Your task to perform on an android device: What's on my calendar today? Image 0: 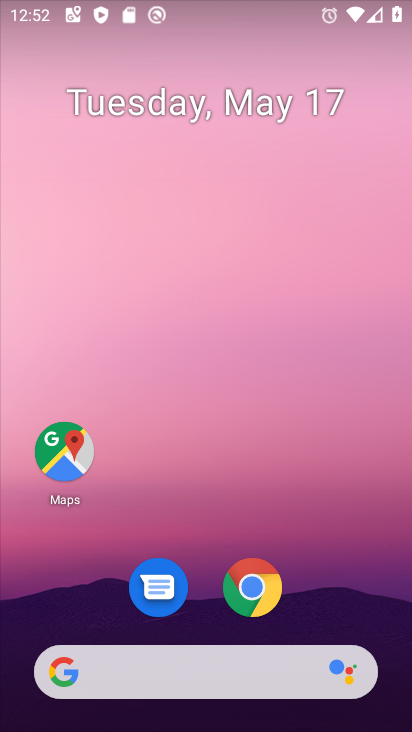
Step 0: drag from (378, 518) to (318, 27)
Your task to perform on an android device: What's on my calendar today? Image 1: 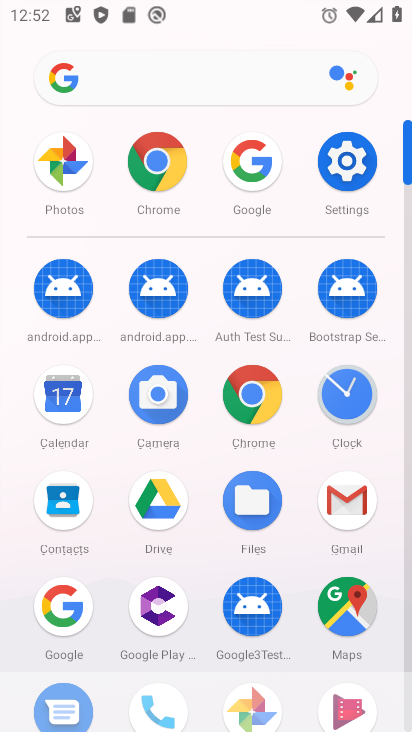
Step 1: click (67, 418)
Your task to perform on an android device: What's on my calendar today? Image 2: 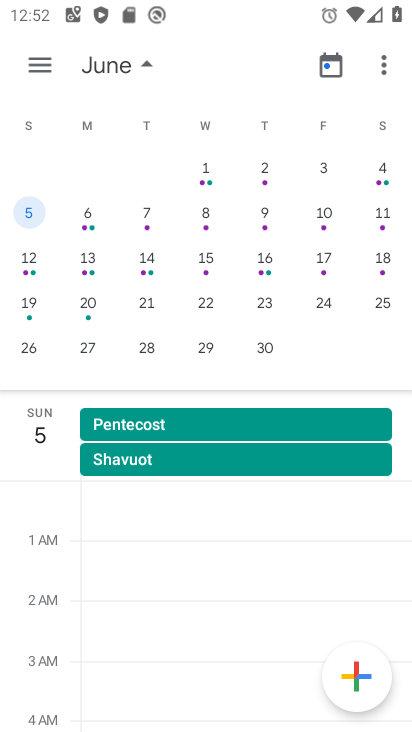
Step 2: click (43, 67)
Your task to perform on an android device: What's on my calendar today? Image 3: 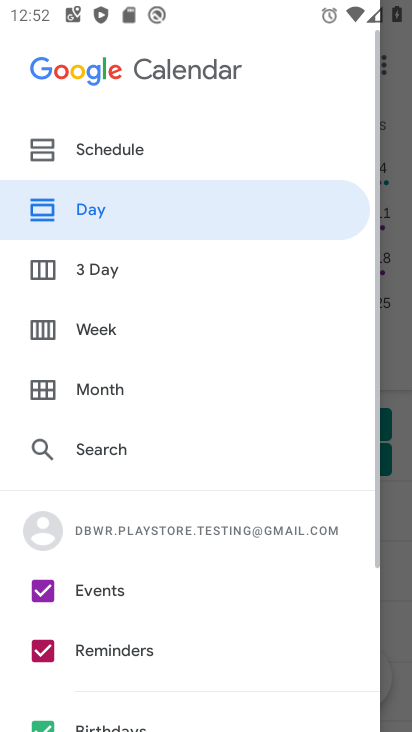
Step 3: click (138, 150)
Your task to perform on an android device: What's on my calendar today? Image 4: 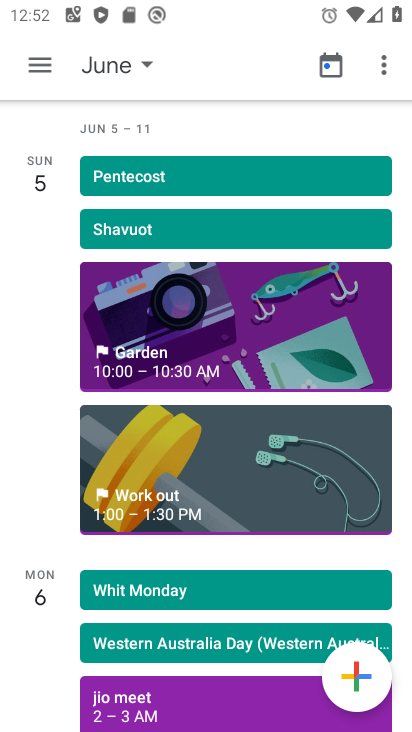
Step 4: task complete